Your task to perform on an android device: turn off notifications in google photos Image 0: 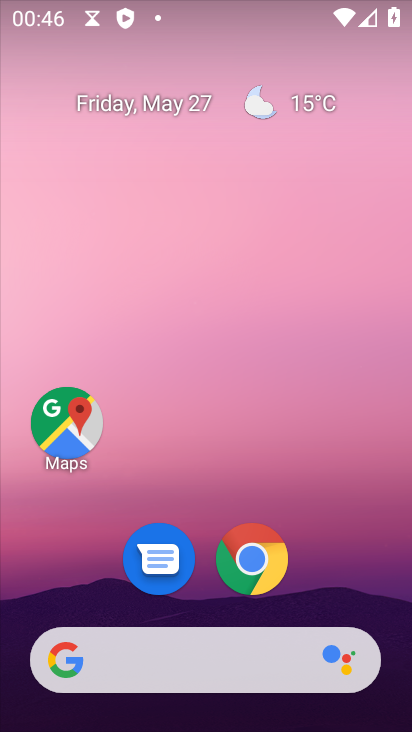
Step 0: drag from (345, 547) to (201, 4)
Your task to perform on an android device: turn off notifications in google photos Image 1: 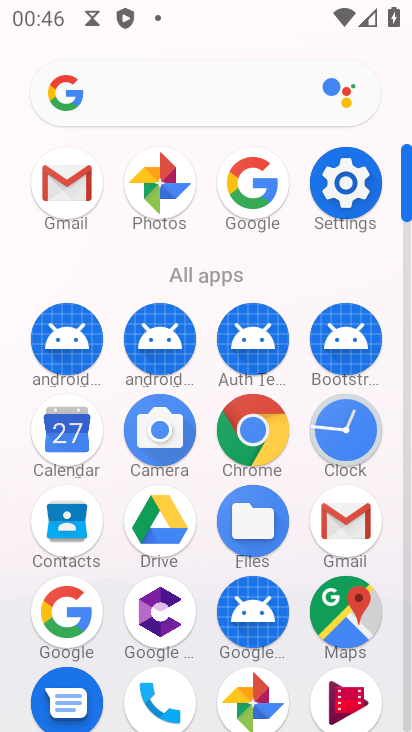
Step 1: click (160, 198)
Your task to perform on an android device: turn off notifications in google photos Image 2: 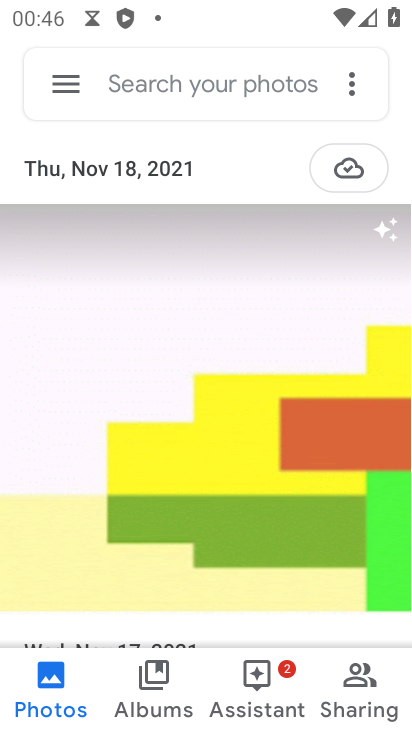
Step 2: click (56, 87)
Your task to perform on an android device: turn off notifications in google photos Image 3: 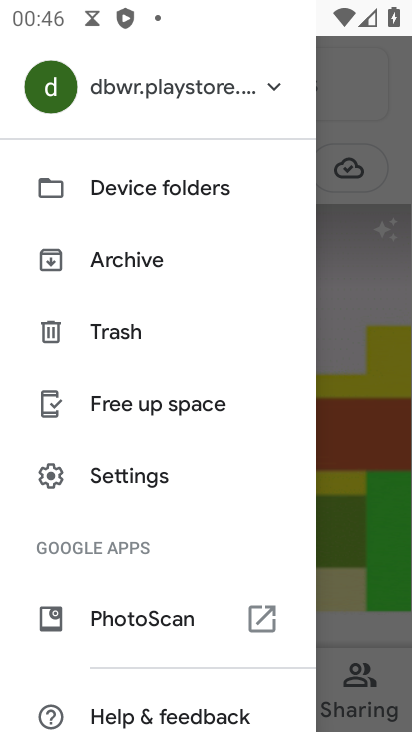
Step 3: click (155, 479)
Your task to perform on an android device: turn off notifications in google photos Image 4: 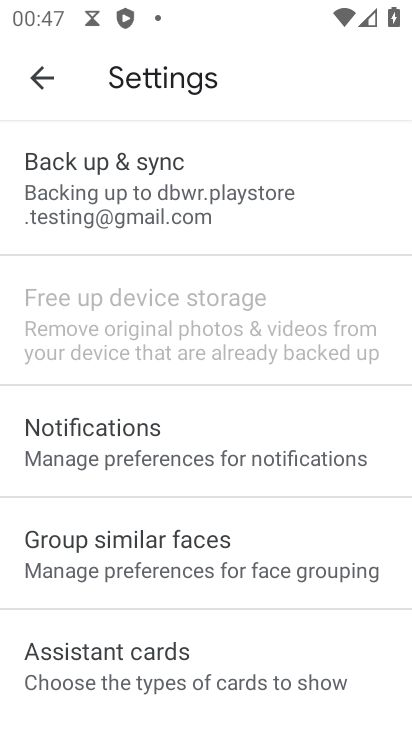
Step 4: click (183, 459)
Your task to perform on an android device: turn off notifications in google photos Image 5: 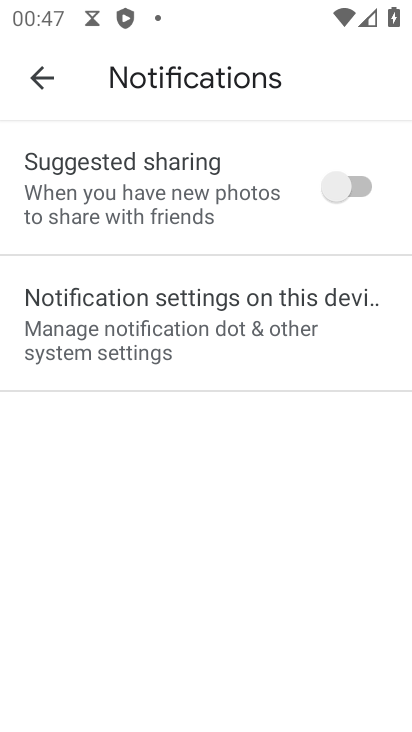
Step 5: task complete